Your task to perform on an android device: Toggle the flashlight Image 0: 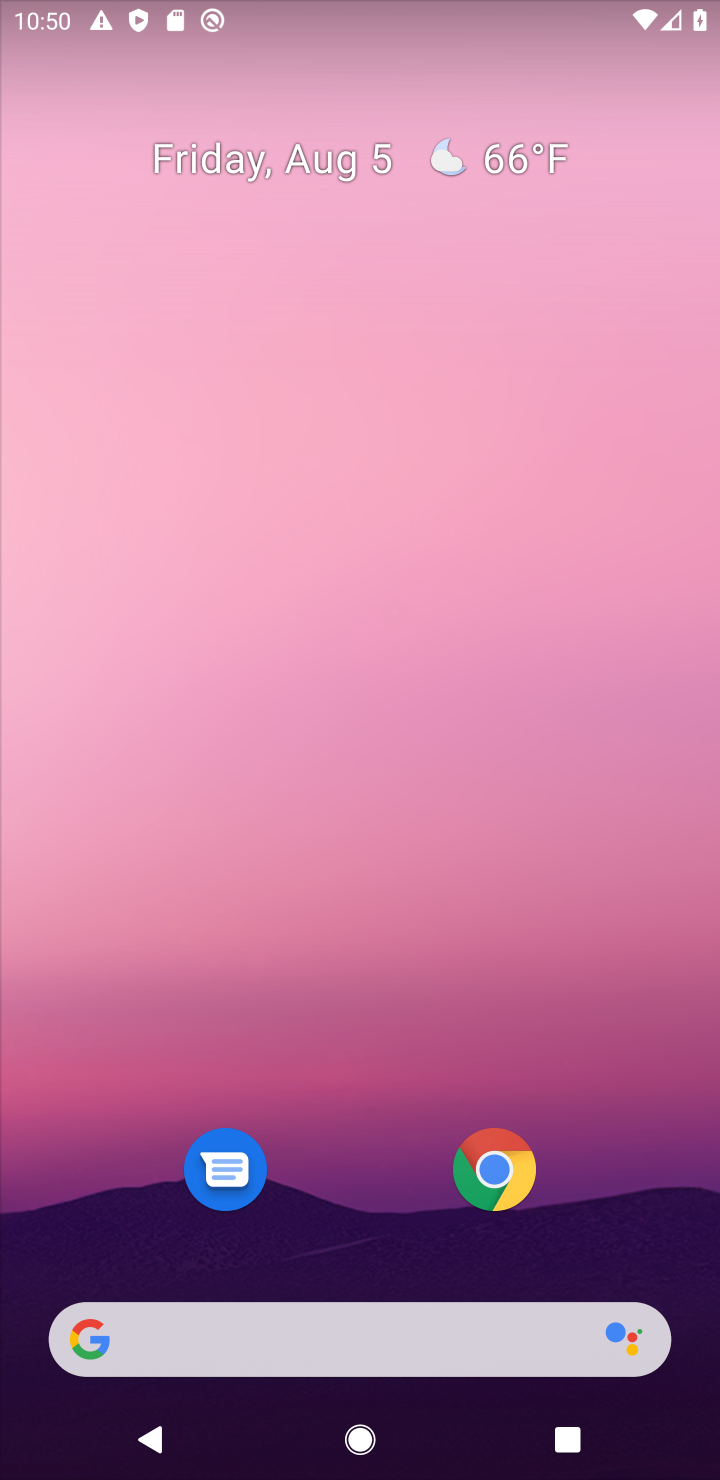
Step 0: click (369, 15)
Your task to perform on an android device: Toggle the flashlight Image 1: 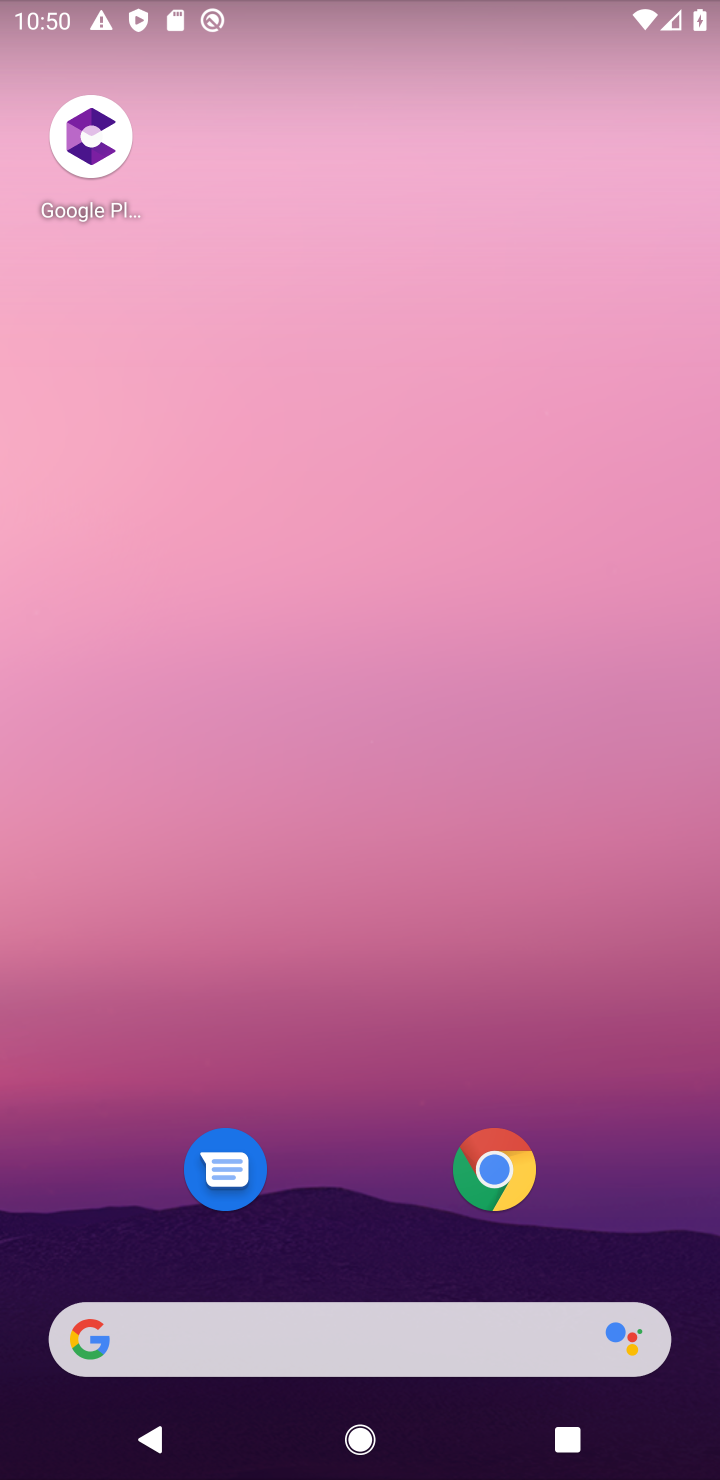
Step 1: drag from (350, 973) to (460, 33)
Your task to perform on an android device: Toggle the flashlight Image 2: 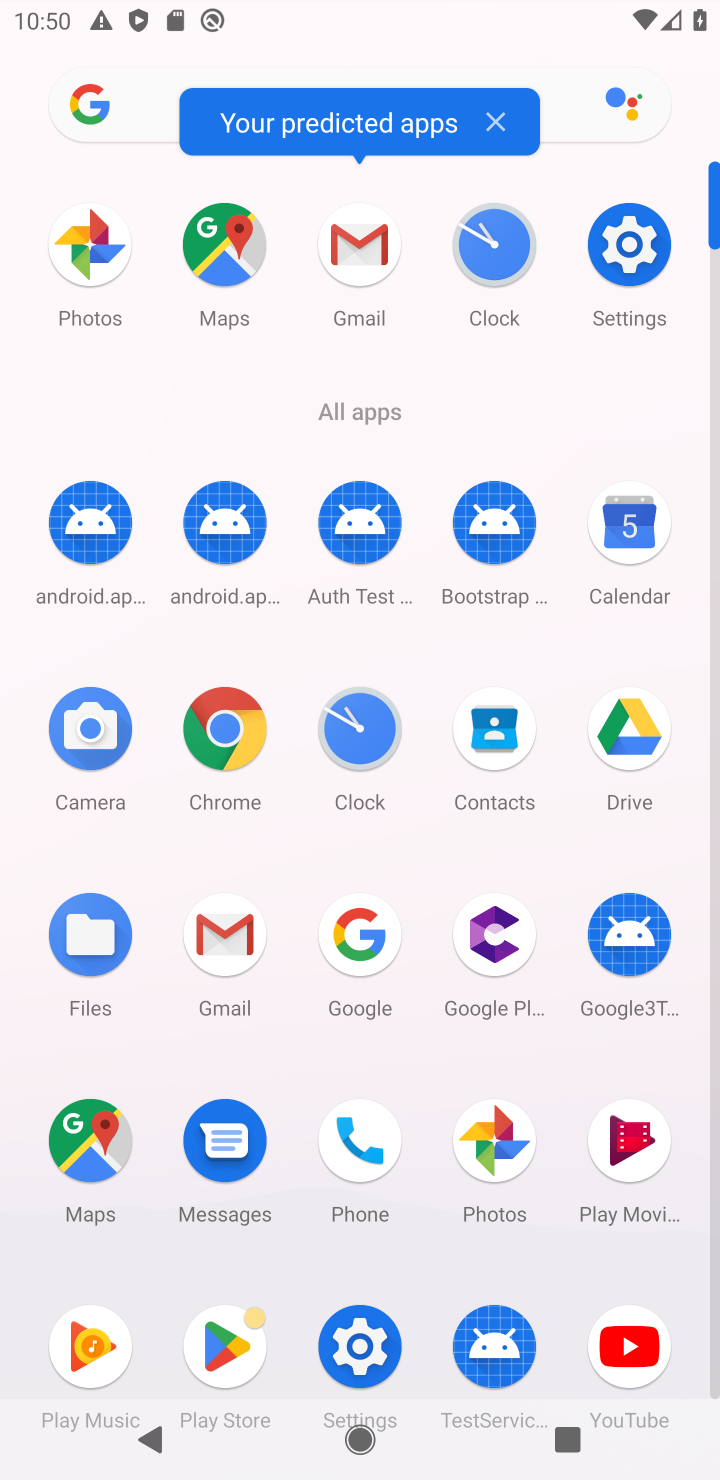
Step 2: click (639, 281)
Your task to perform on an android device: Toggle the flashlight Image 3: 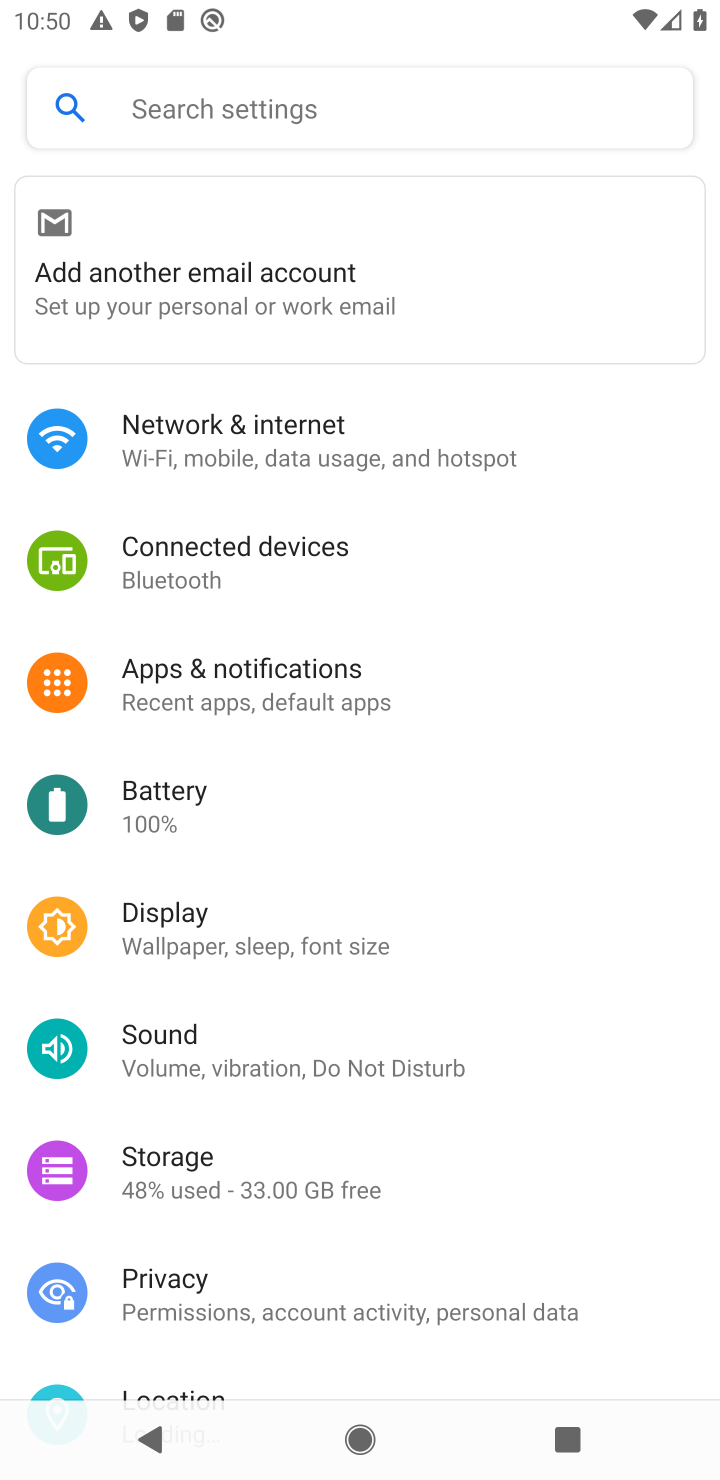
Step 3: click (345, 96)
Your task to perform on an android device: Toggle the flashlight Image 4: 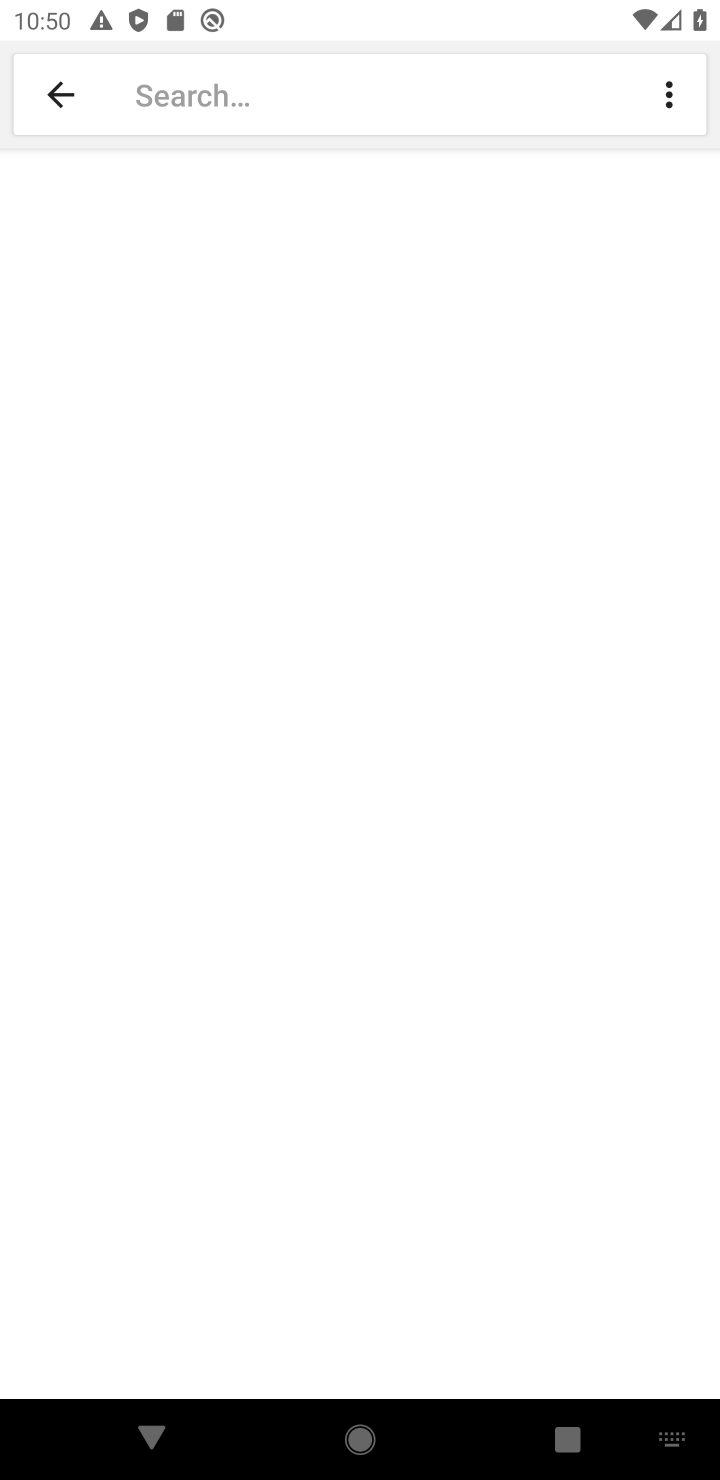
Step 4: type "flashlight"
Your task to perform on an android device: Toggle the flashlight Image 5: 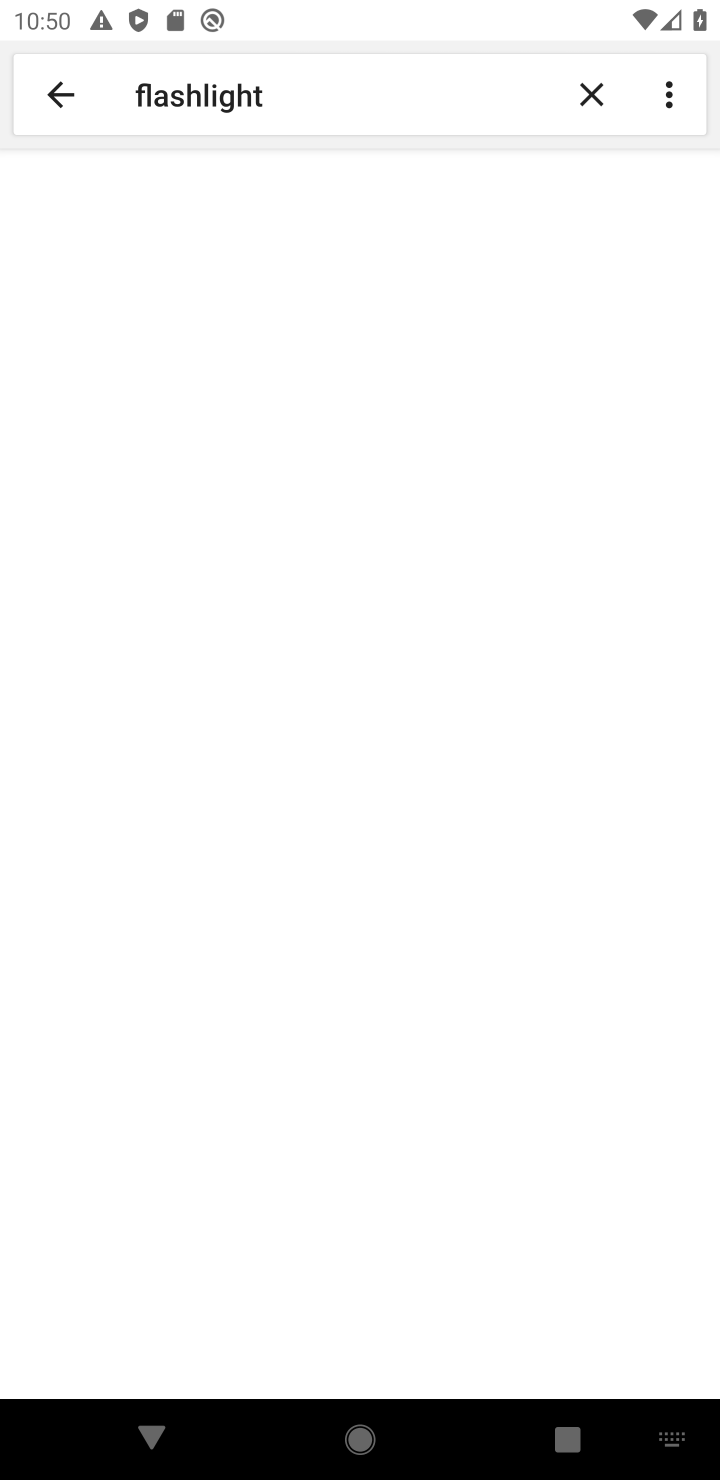
Step 5: click (256, 250)
Your task to perform on an android device: Toggle the flashlight Image 6: 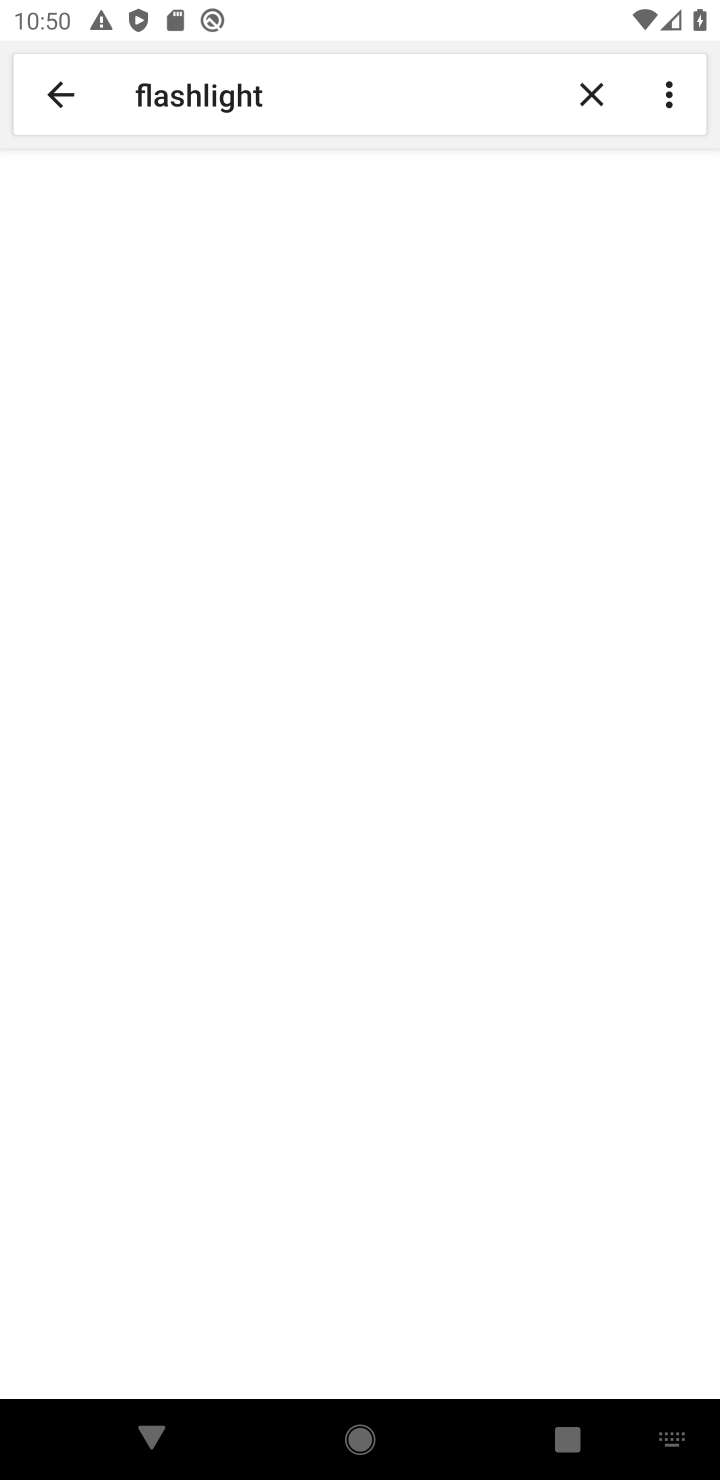
Step 6: click (269, 231)
Your task to perform on an android device: Toggle the flashlight Image 7: 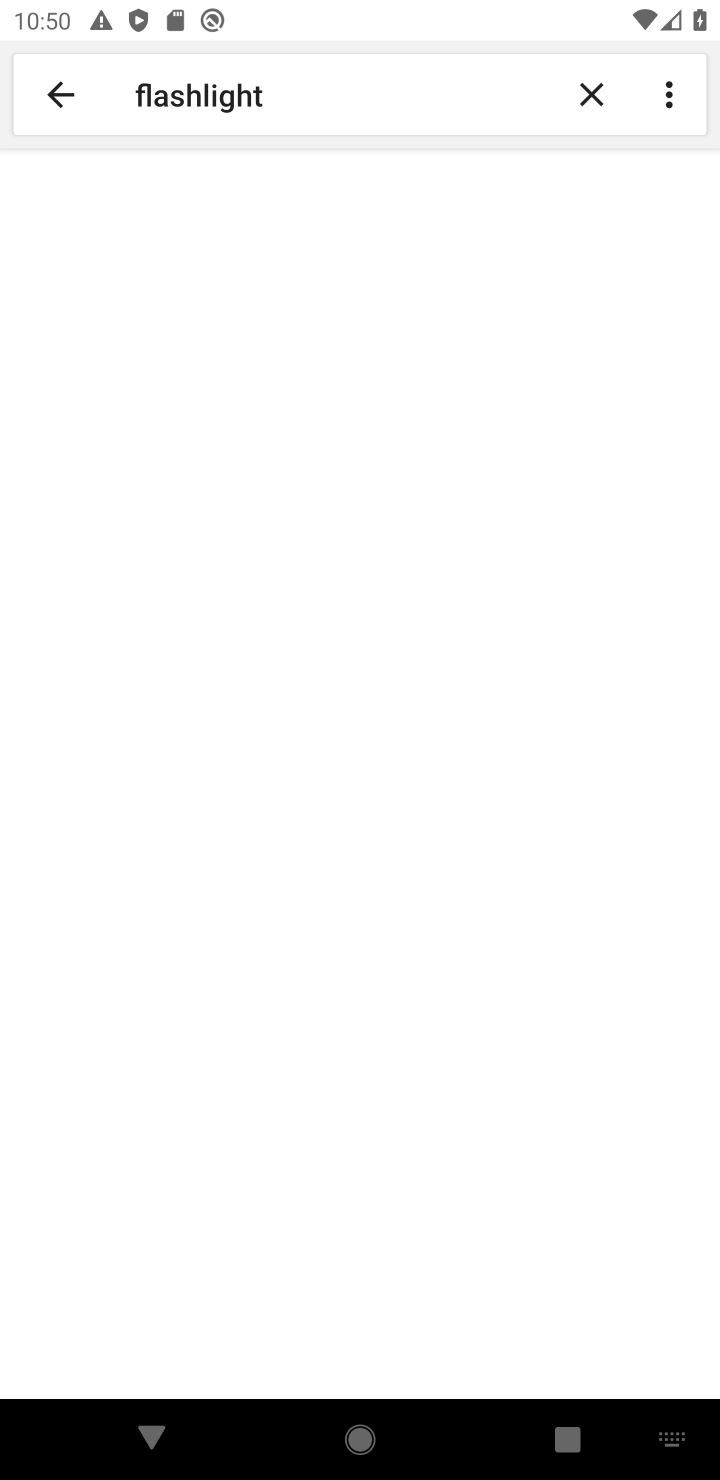
Step 7: task complete